Your task to perform on an android device: Go to settings Image 0: 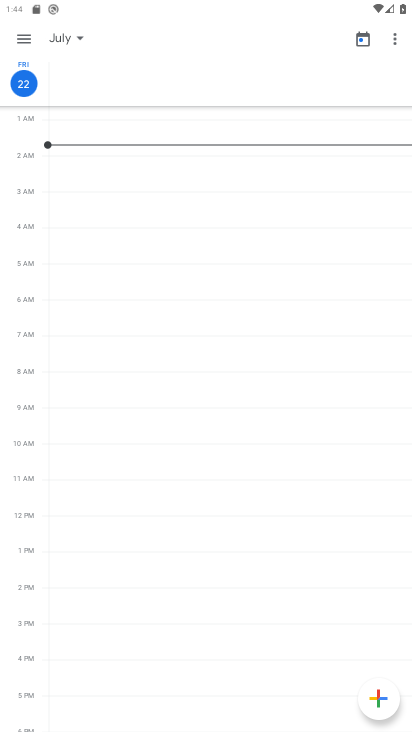
Step 0: press home button
Your task to perform on an android device: Go to settings Image 1: 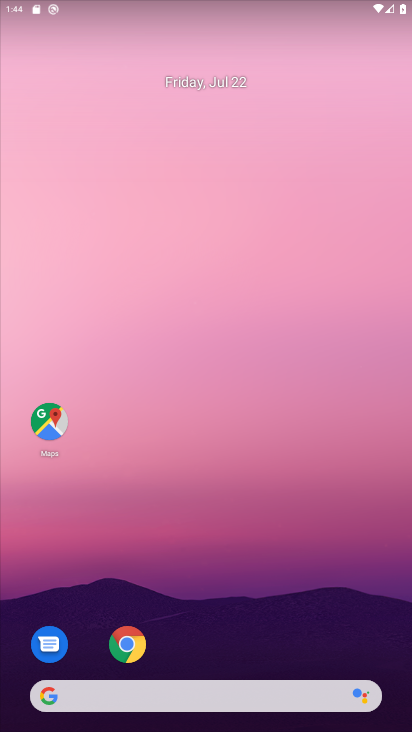
Step 1: drag from (287, 603) to (301, 148)
Your task to perform on an android device: Go to settings Image 2: 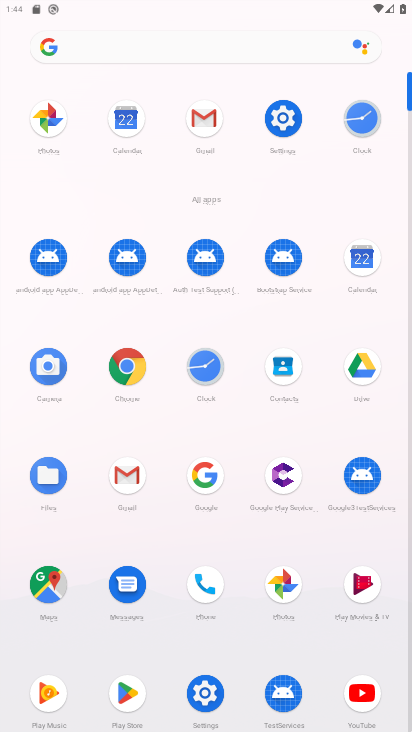
Step 2: click (282, 130)
Your task to perform on an android device: Go to settings Image 3: 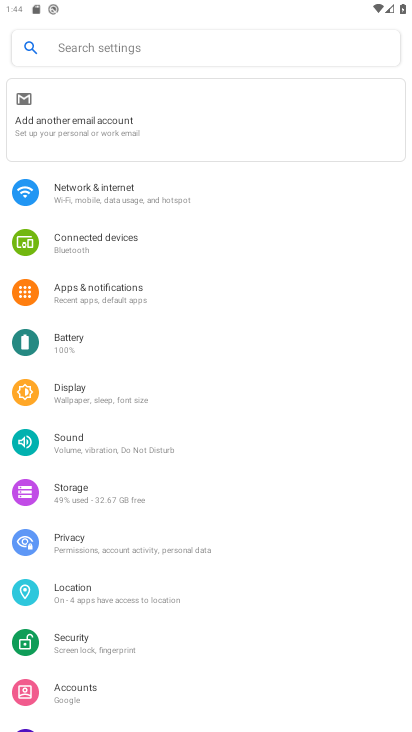
Step 3: task complete